Your task to perform on an android device: Open Chrome and go to the settings page Image 0: 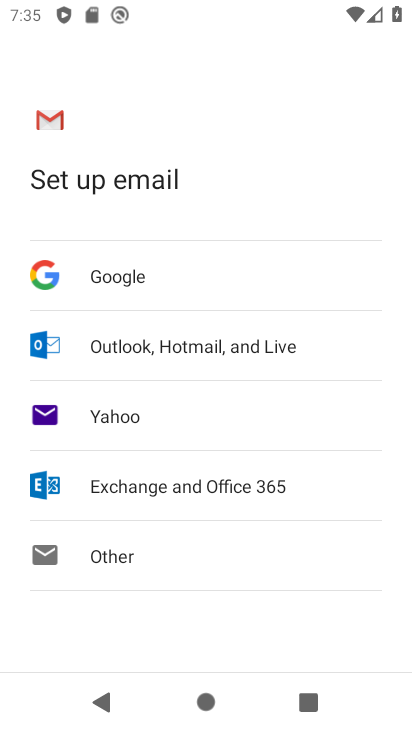
Step 0: press home button
Your task to perform on an android device: Open Chrome and go to the settings page Image 1: 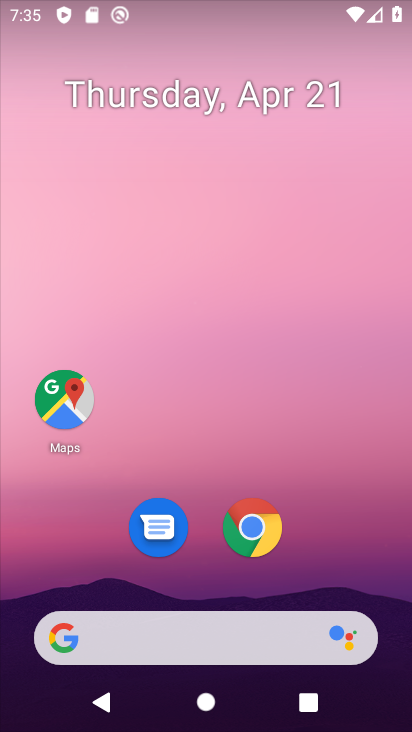
Step 1: drag from (230, 417) to (313, 7)
Your task to perform on an android device: Open Chrome and go to the settings page Image 2: 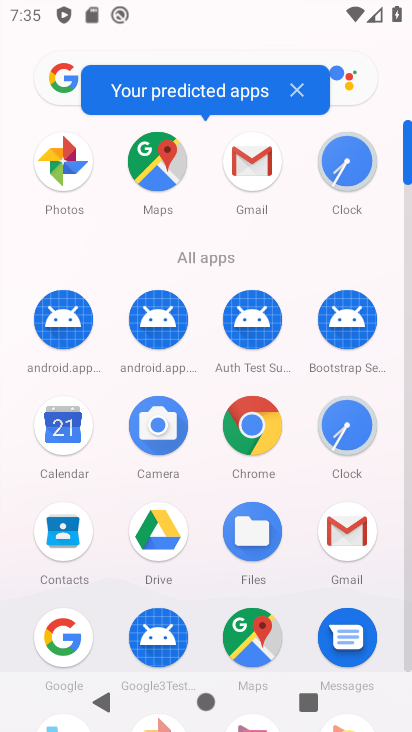
Step 2: click (405, 525)
Your task to perform on an android device: Open Chrome and go to the settings page Image 3: 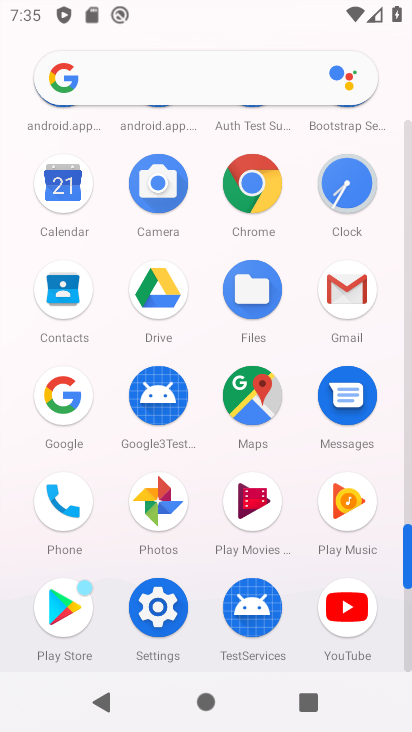
Step 3: click (246, 187)
Your task to perform on an android device: Open Chrome and go to the settings page Image 4: 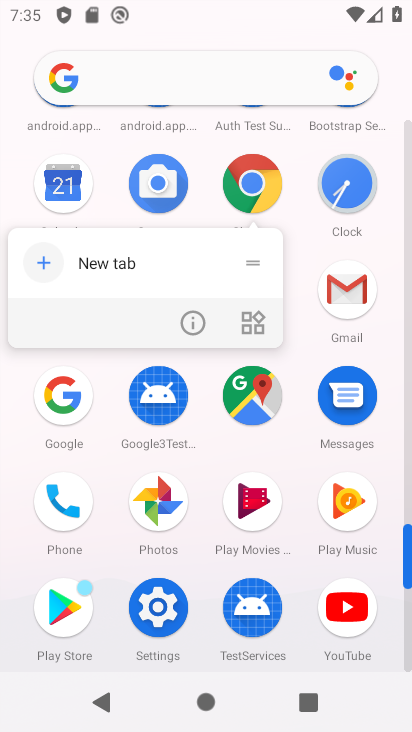
Step 4: click (278, 179)
Your task to perform on an android device: Open Chrome and go to the settings page Image 5: 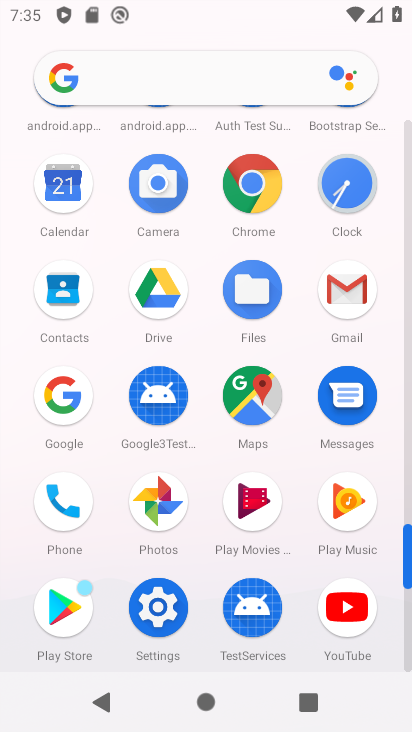
Step 5: click (258, 197)
Your task to perform on an android device: Open Chrome and go to the settings page Image 6: 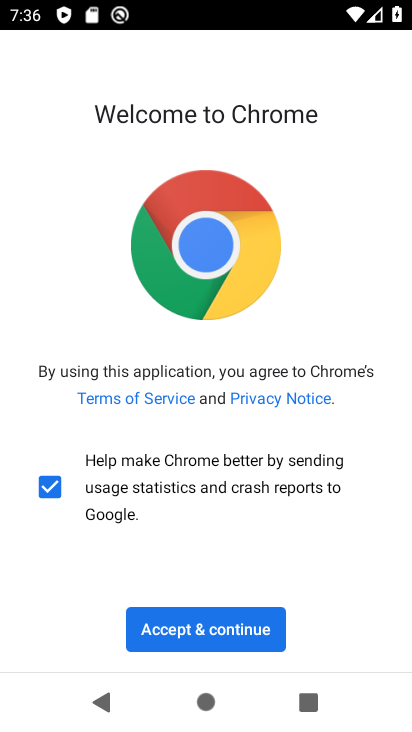
Step 6: click (231, 619)
Your task to perform on an android device: Open Chrome and go to the settings page Image 7: 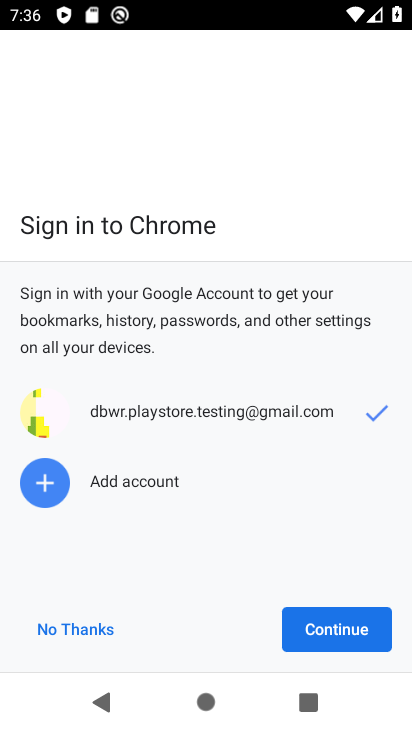
Step 7: click (287, 637)
Your task to perform on an android device: Open Chrome and go to the settings page Image 8: 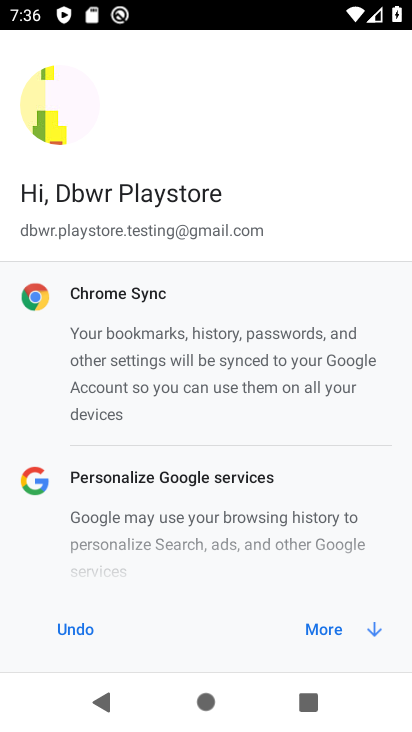
Step 8: click (316, 627)
Your task to perform on an android device: Open Chrome and go to the settings page Image 9: 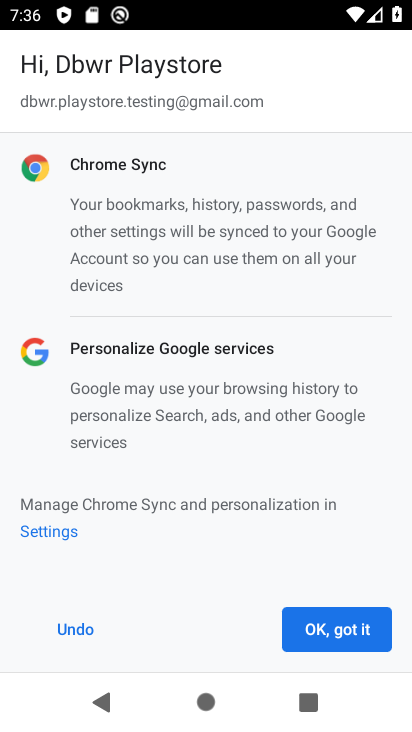
Step 9: click (341, 639)
Your task to perform on an android device: Open Chrome and go to the settings page Image 10: 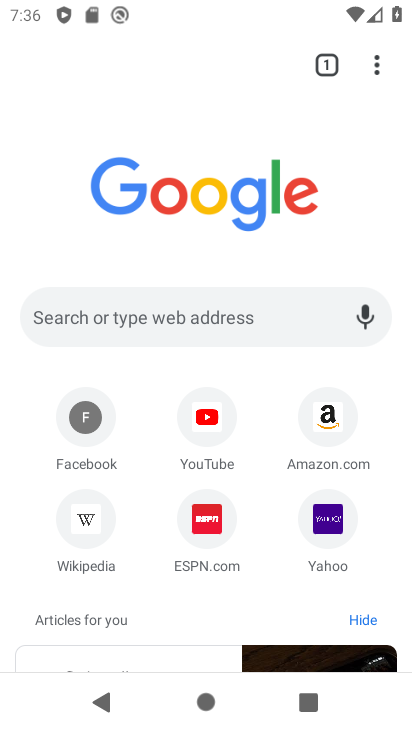
Step 10: click (376, 62)
Your task to perform on an android device: Open Chrome and go to the settings page Image 11: 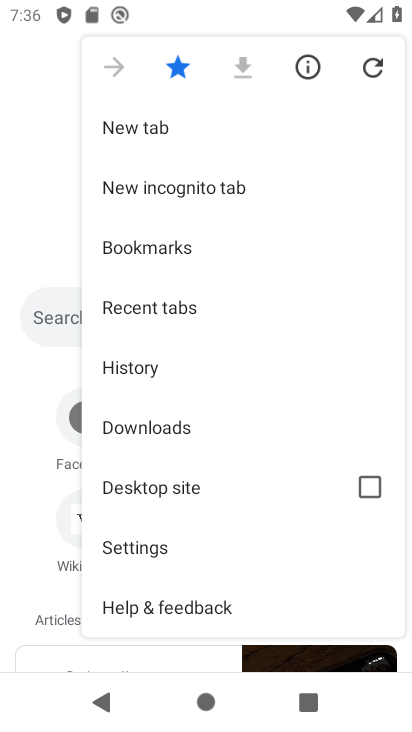
Step 11: click (140, 545)
Your task to perform on an android device: Open Chrome and go to the settings page Image 12: 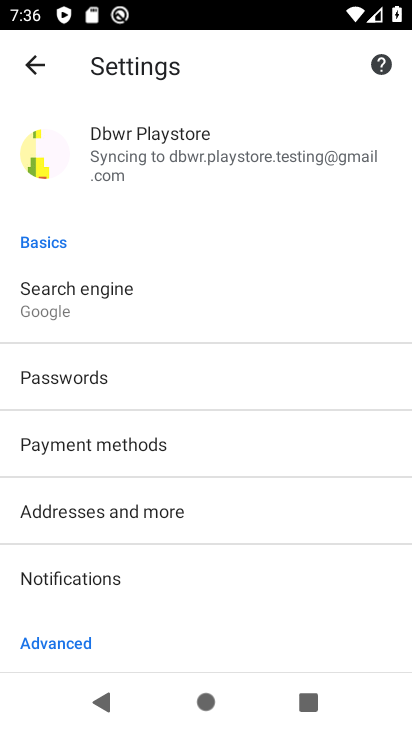
Step 12: task complete